Your task to perform on an android device: Open the web browser Image 0: 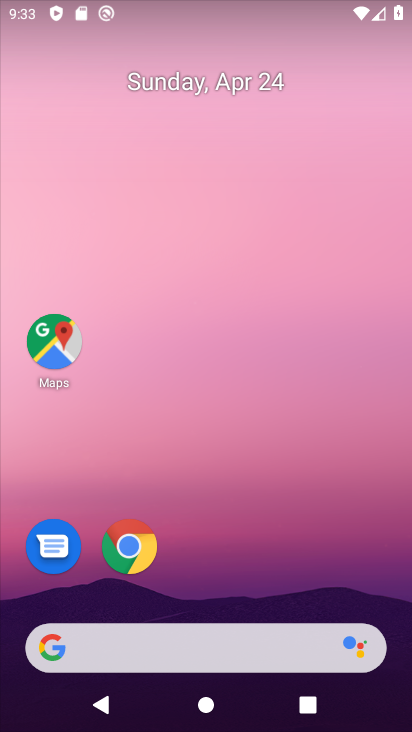
Step 0: click (126, 549)
Your task to perform on an android device: Open the web browser Image 1: 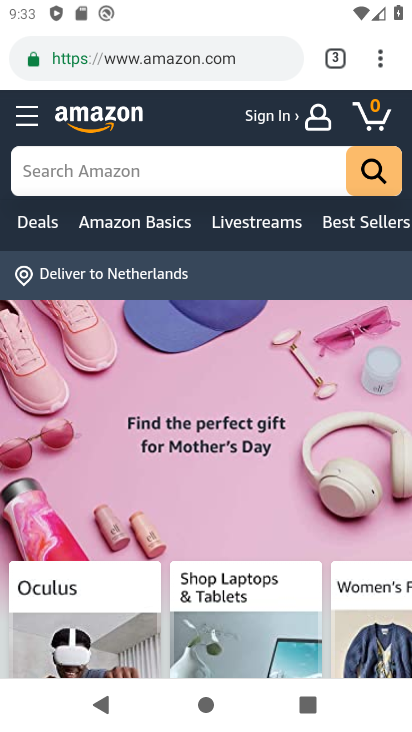
Step 1: task complete